Your task to perform on an android device: refresh tabs in the chrome app Image 0: 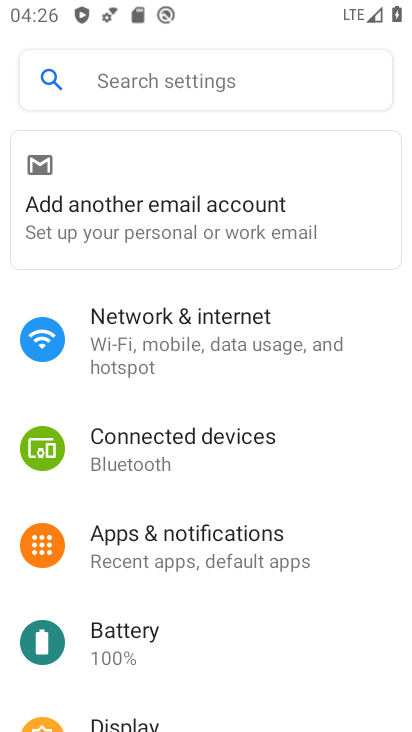
Step 0: press home button
Your task to perform on an android device: refresh tabs in the chrome app Image 1: 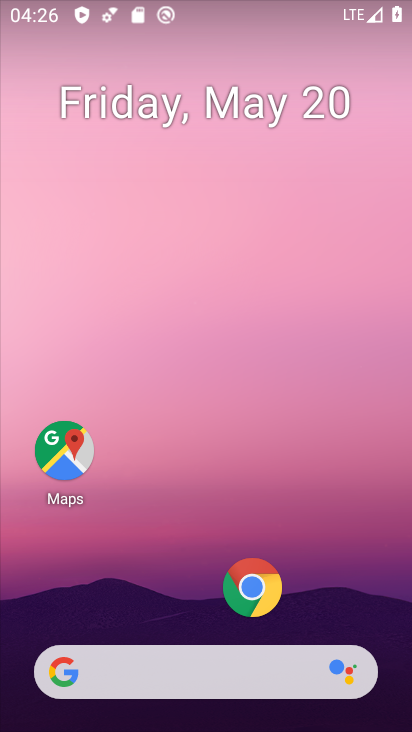
Step 1: click (258, 579)
Your task to perform on an android device: refresh tabs in the chrome app Image 2: 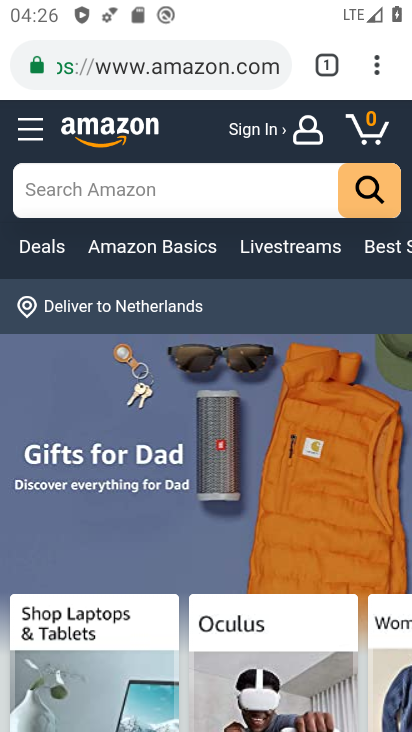
Step 2: click (394, 67)
Your task to perform on an android device: refresh tabs in the chrome app Image 3: 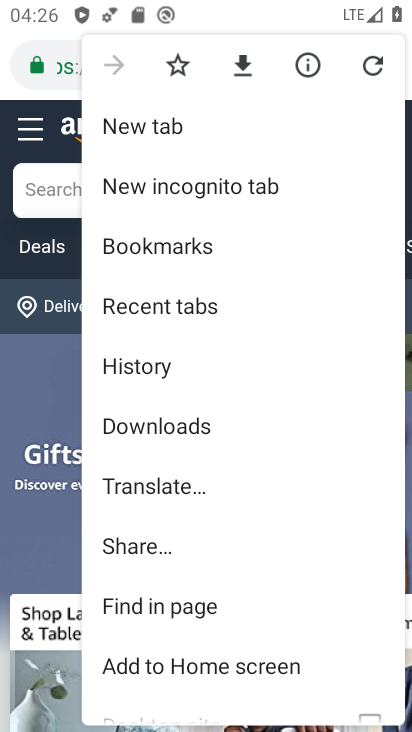
Step 3: click (394, 67)
Your task to perform on an android device: refresh tabs in the chrome app Image 4: 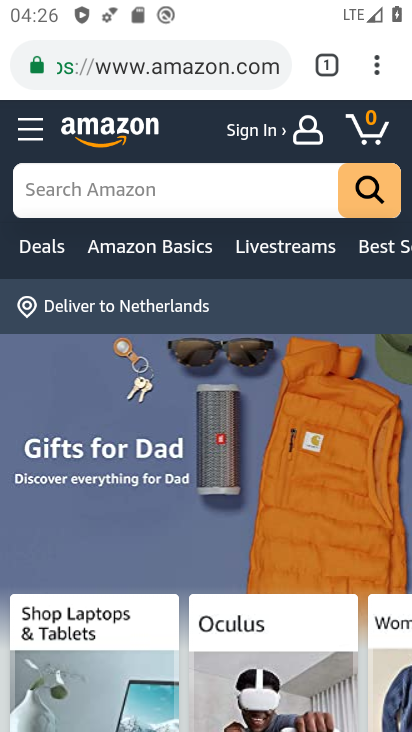
Step 4: task complete